Your task to perform on an android device: make emails show in primary in the gmail app Image 0: 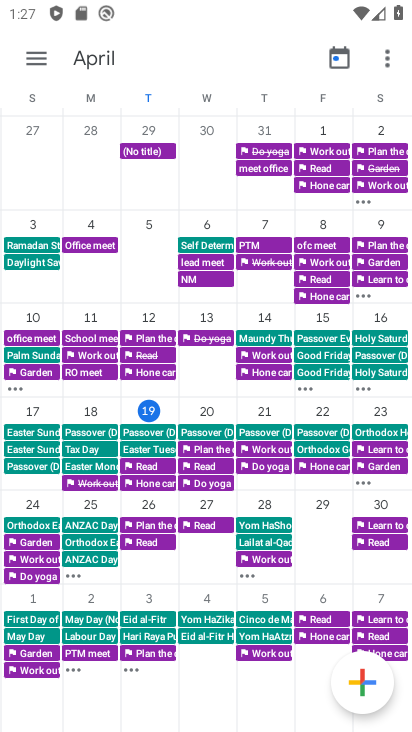
Step 0: press home button
Your task to perform on an android device: make emails show in primary in the gmail app Image 1: 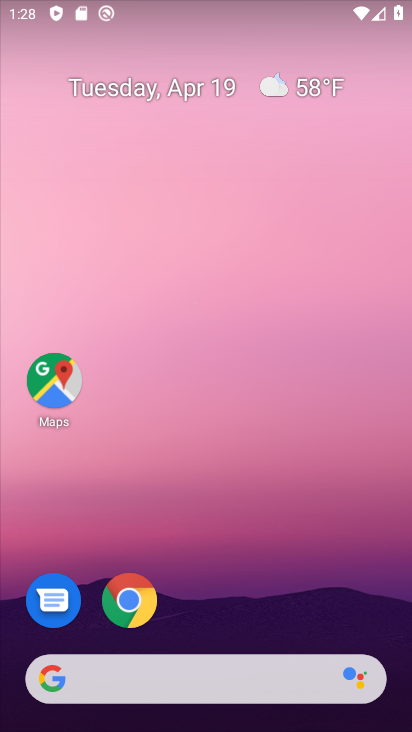
Step 1: drag from (228, 677) to (189, 236)
Your task to perform on an android device: make emails show in primary in the gmail app Image 2: 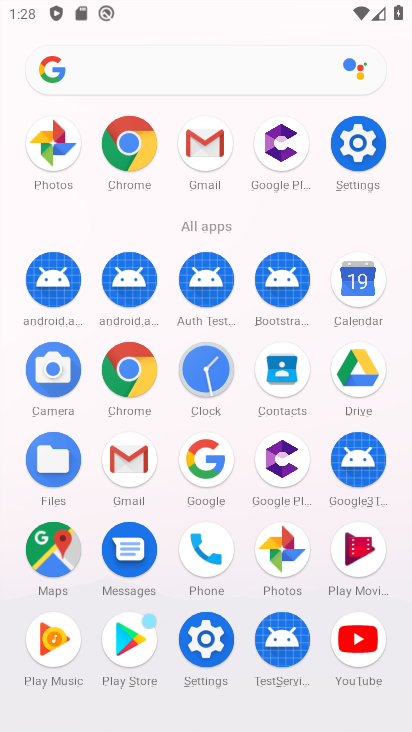
Step 2: click (118, 457)
Your task to perform on an android device: make emails show in primary in the gmail app Image 3: 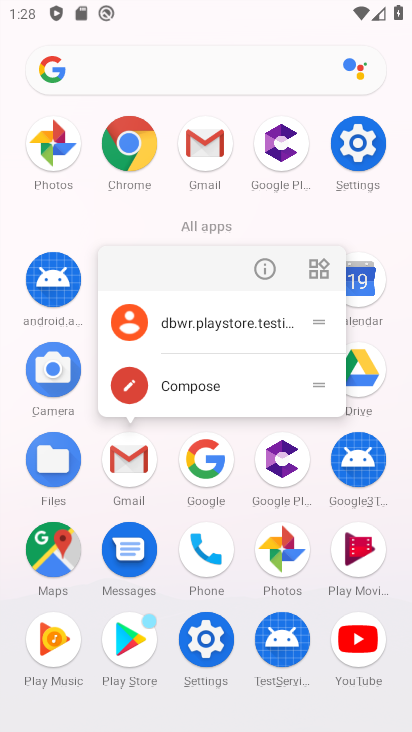
Step 3: click (125, 459)
Your task to perform on an android device: make emails show in primary in the gmail app Image 4: 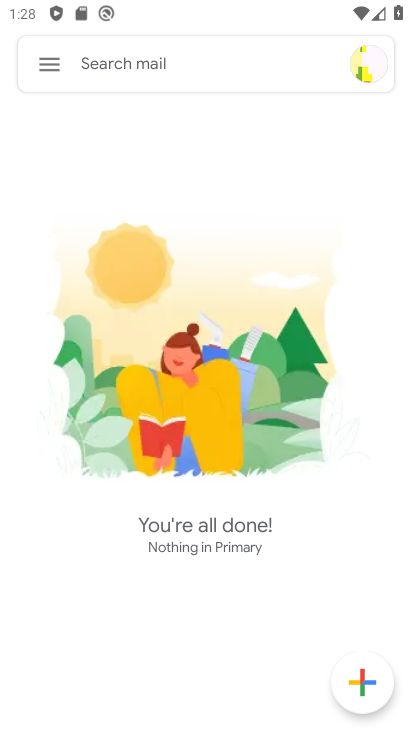
Step 4: click (37, 57)
Your task to perform on an android device: make emails show in primary in the gmail app Image 5: 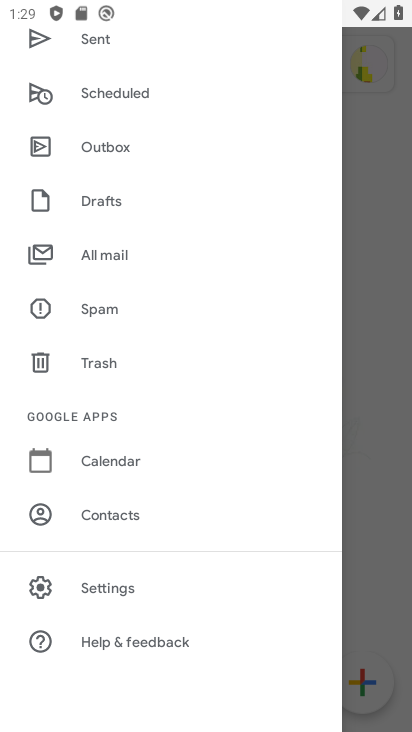
Step 5: click (91, 582)
Your task to perform on an android device: make emails show in primary in the gmail app Image 6: 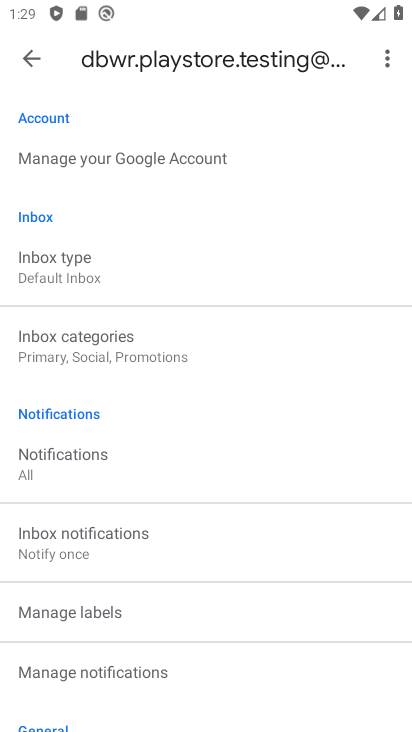
Step 6: drag from (90, 569) to (60, 285)
Your task to perform on an android device: make emails show in primary in the gmail app Image 7: 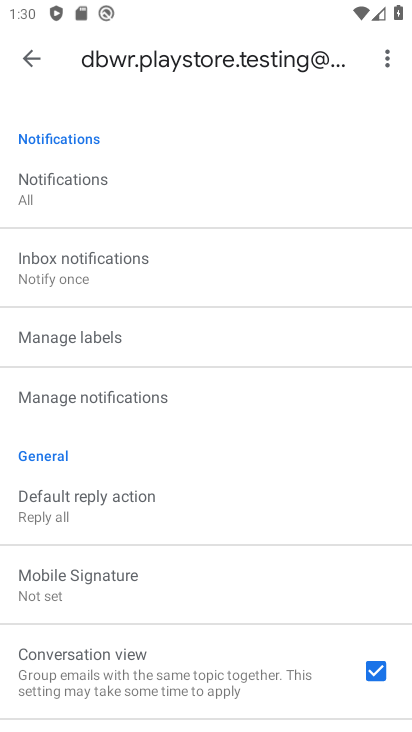
Step 7: drag from (136, 217) to (143, 620)
Your task to perform on an android device: make emails show in primary in the gmail app Image 8: 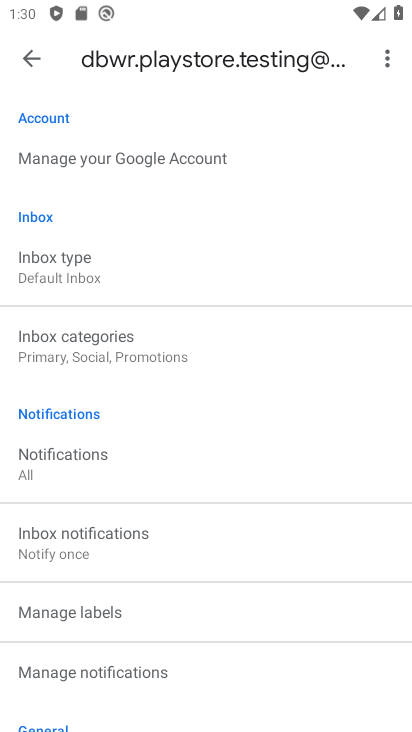
Step 8: click (133, 344)
Your task to perform on an android device: make emails show in primary in the gmail app Image 9: 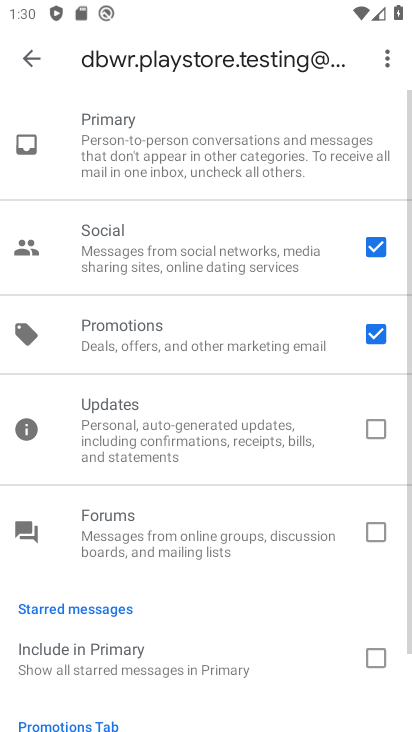
Step 9: click (372, 326)
Your task to perform on an android device: make emails show in primary in the gmail app Image 10: 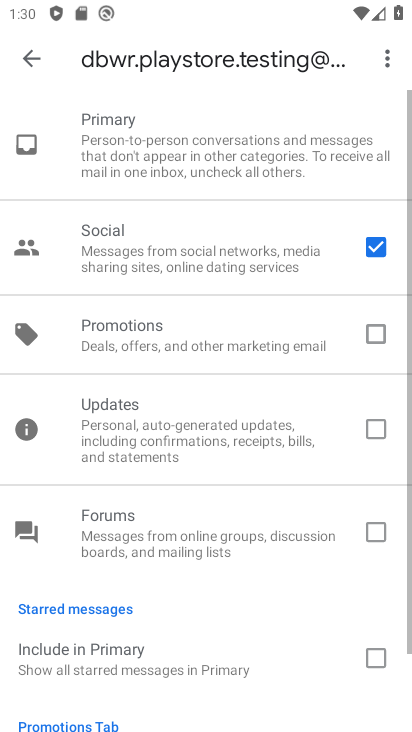
Step 10: click (371, 254)
Your task to perform on an android device: make emails show in primary in the gmail app Image 11: 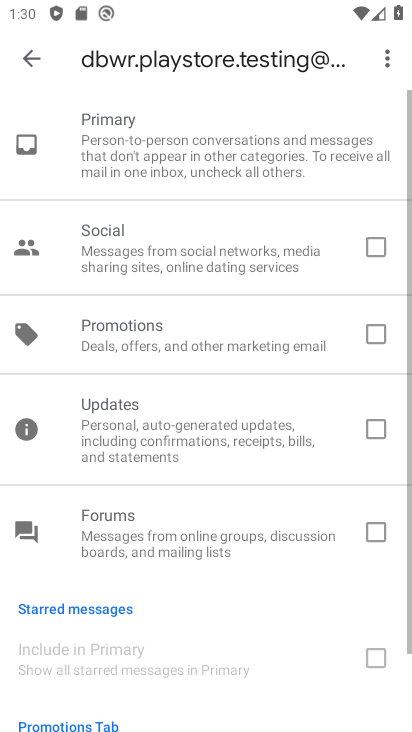
Step 11: task complete